Your task to perform on an android device: Open Amazon Image 0: 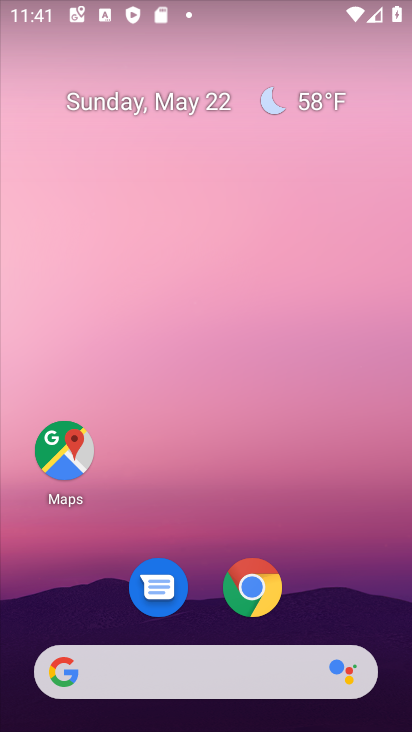
Step 0: drag from (279, 526) to (306, 49)
Your task to perform on an android device: Open Amazon Image 1: 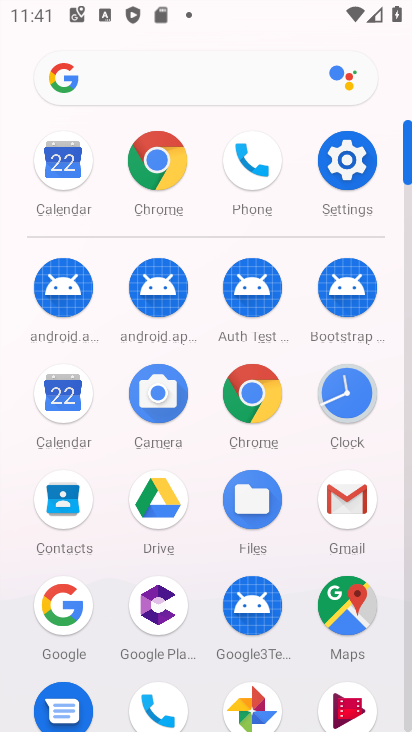
Step 1: click (158, 157)
Your task to perform on an android device: Open Amazon Image 2: 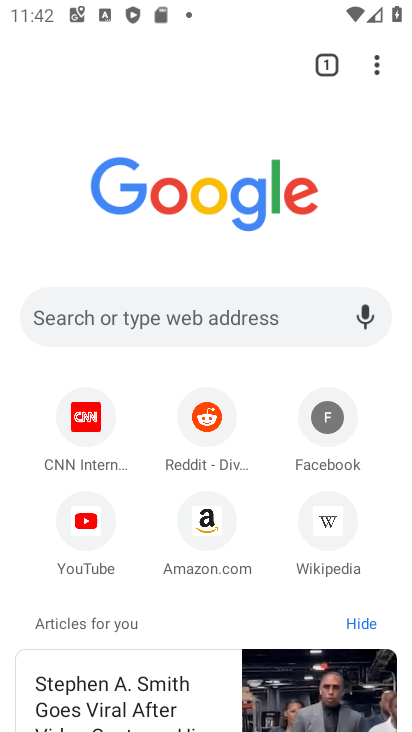
Step 2: click (203, 512)
Your task to perform on an android device: Open Amazon Image 3: 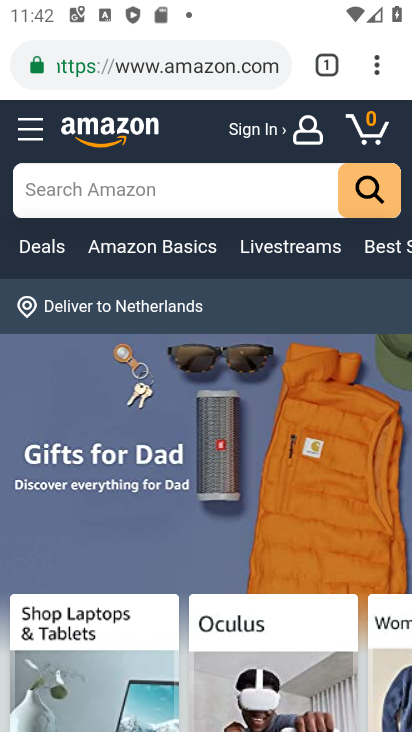
Step 3: task complete